Your task to perform on an android device: change the clock display to analog Image 0: 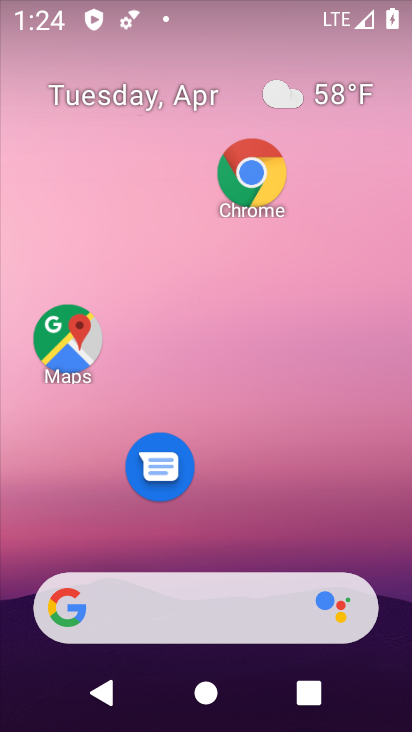
Step 0: drag from (199, 548) to (228, 113)
Your task to perform on an android device: change the clock display to analog Image 1: 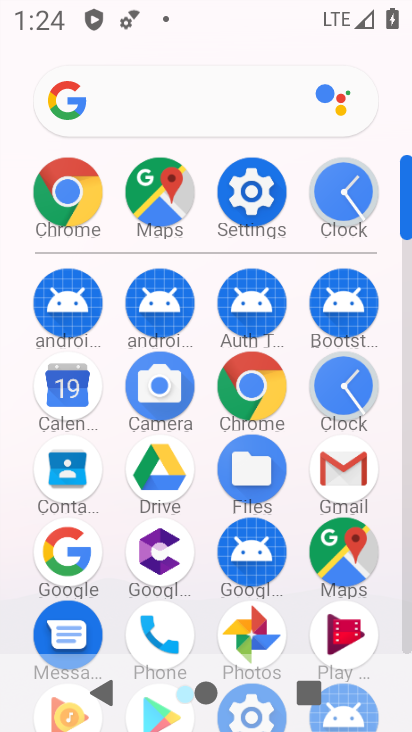
Step 1: click (347, 412)
Your task to perform on an android device: change the clock display to analog Image 2: 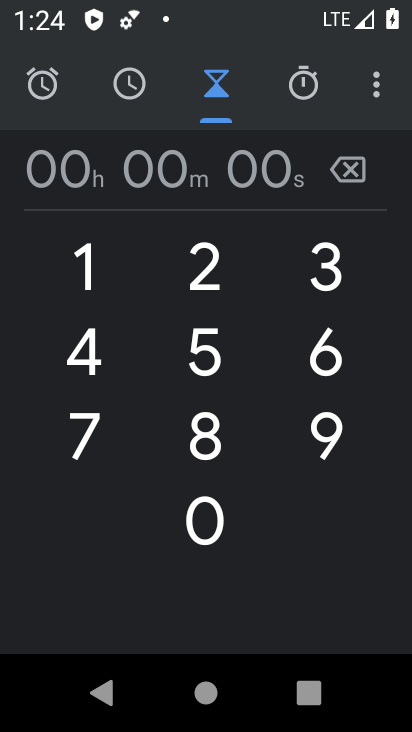
Step 2: click (377, 83)
Your task to perform on an android device: change the clock display to analog Image 3: 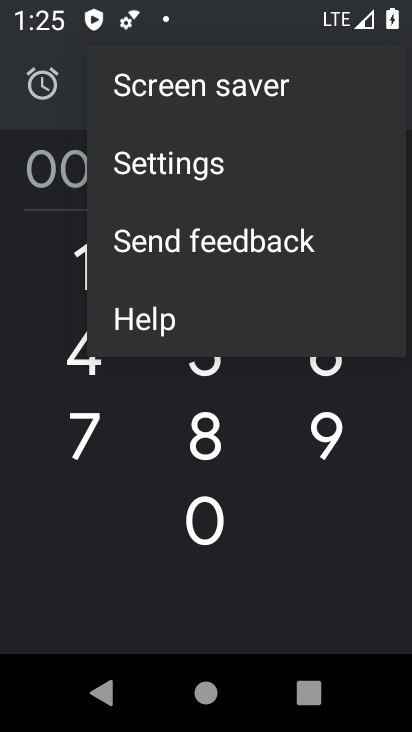
Step 3: click (215, 183)
Your task to perform on an android device: change the clock display to analog Image 4: 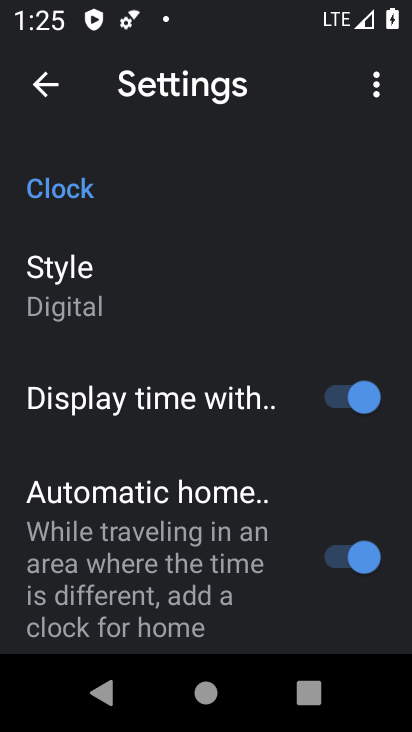
Step 4: click (128, 291)
Your task to perform on an android device: change the clock display to analog Image 5: 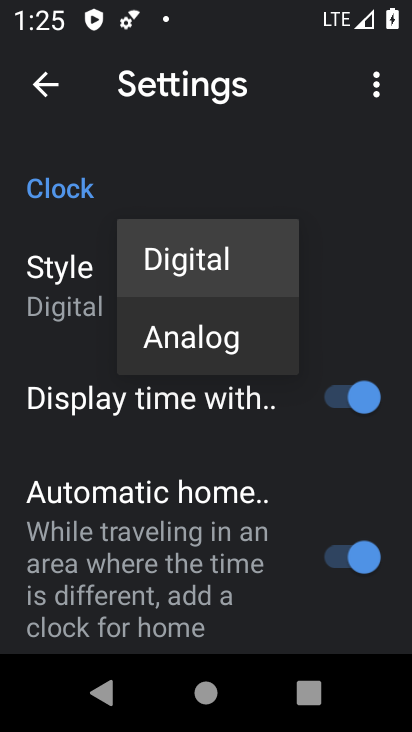
Step 5: click (183, 342)
Your task to perform on an android device: change the clock display to analog Image 6: 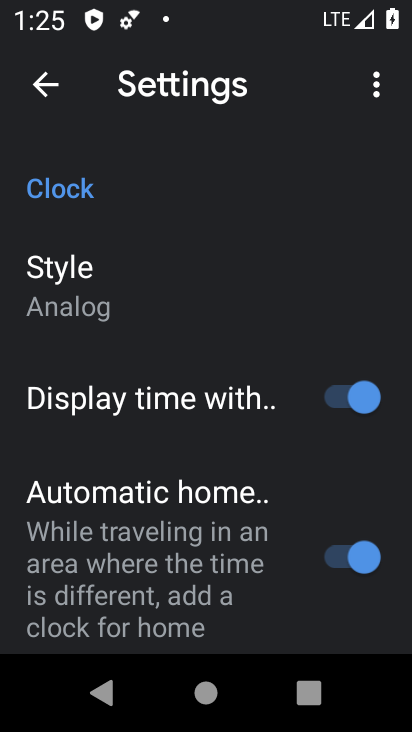
Step 6: task complete